Your task to perform on an android device: Open the clock Image 0: 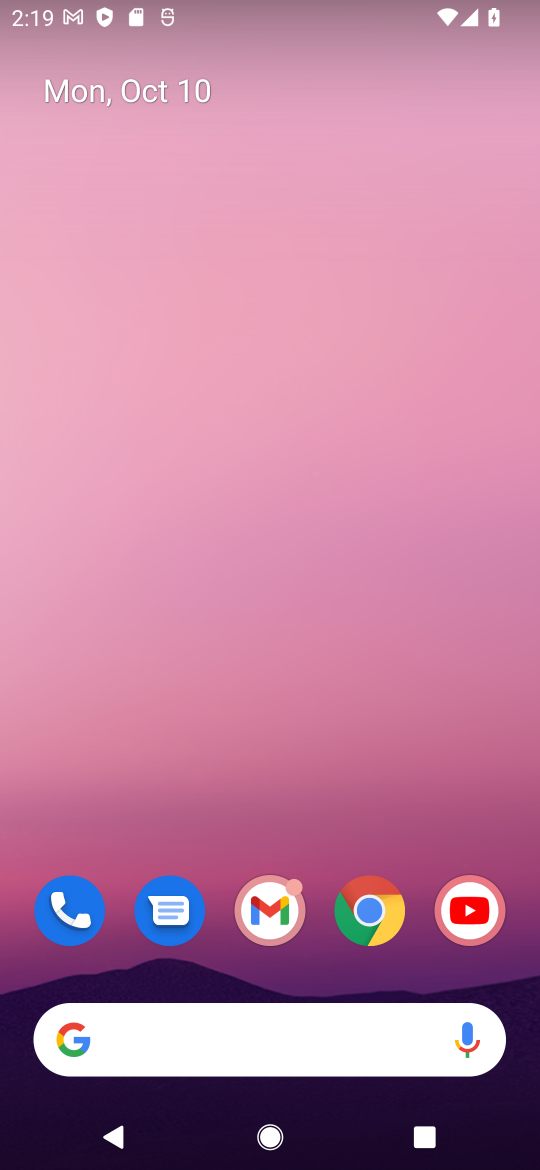
Step 0: drag from (324, 979) to (301, 385)
Your task to perform on an android device: Open the clock Image 1: 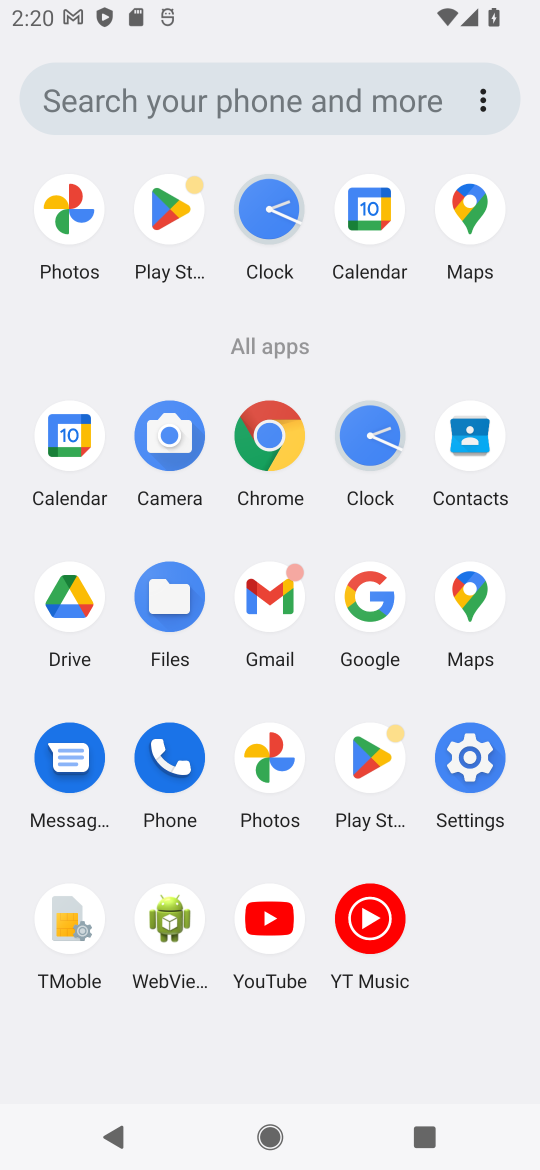
Step 1: click (358, 459)
Your task to perform on an android device: Open the clock Image 2: 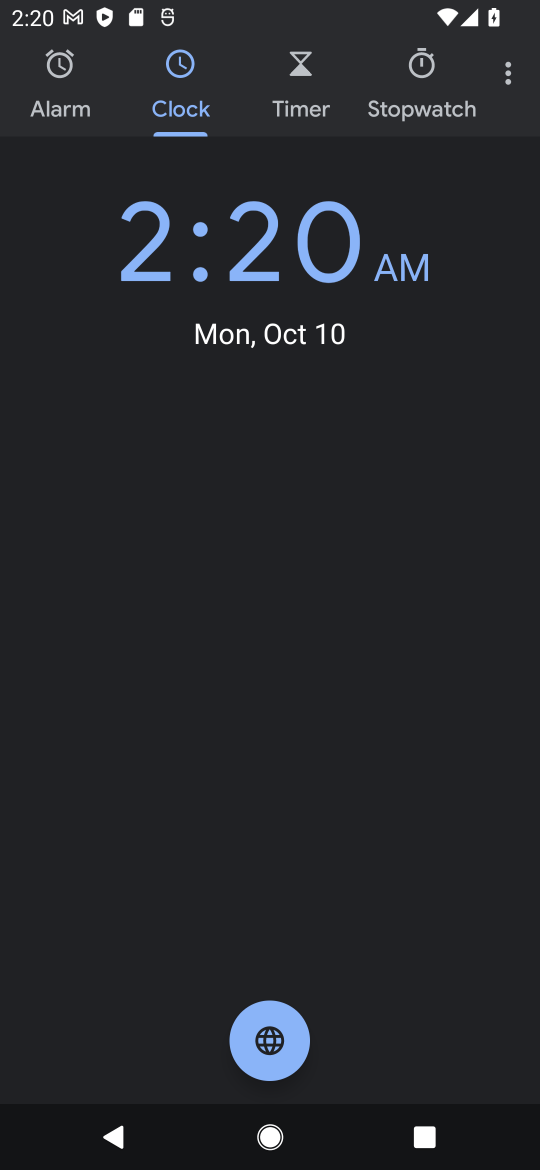
Step 2: task complete